Your task to perform on an android device: Go to Amazon Image 0: 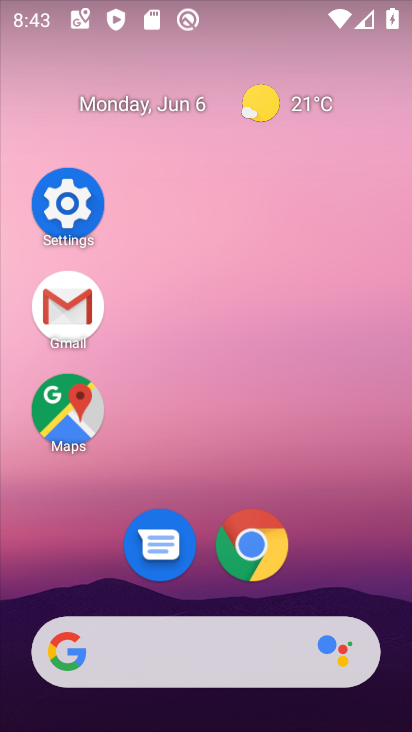
Step 0: click (258, 522)
Your task to perform on an android device: Go to Amazon Image 1: 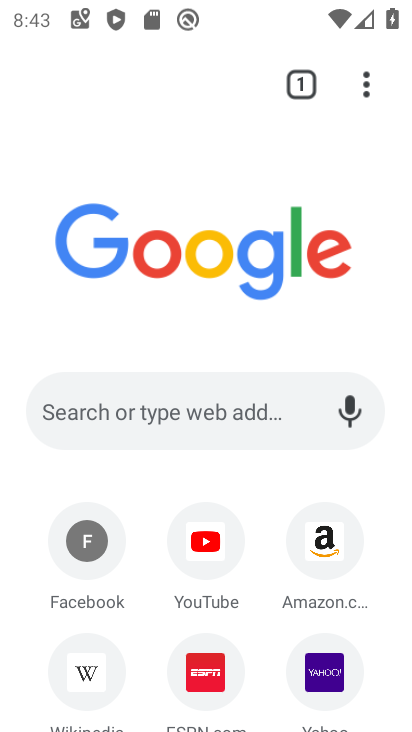
Step 1: click (328, 550)
Your task to perform on an android device: Go to Amazon Image 2: 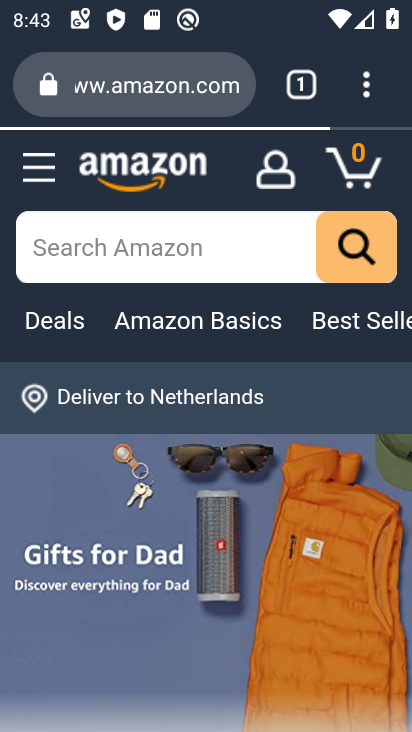
Step 2: task complete